Your task to perform on an android device: empty trash in the gmail app Image 0: 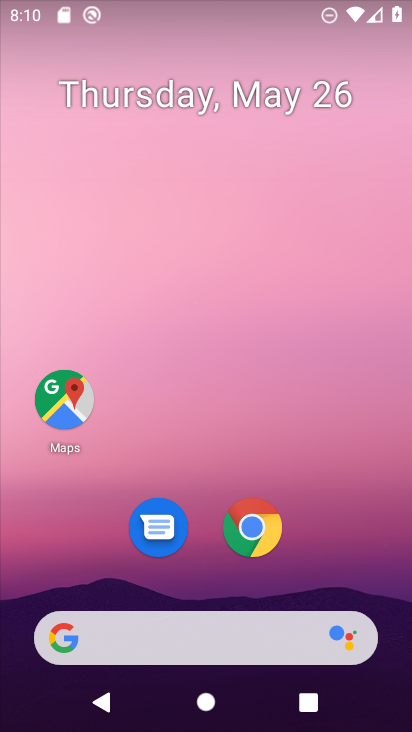
Step 0: press home button
Your task to perform on an android device: empty trash in the gmail app Image 1: 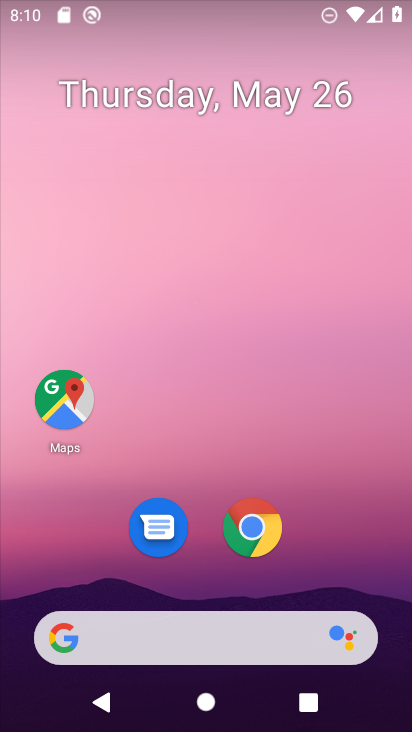
Step 1: drag from (6, 546) to (207, 62)
Your task to perform on an android device: empty trash in the gmail app Image 2: 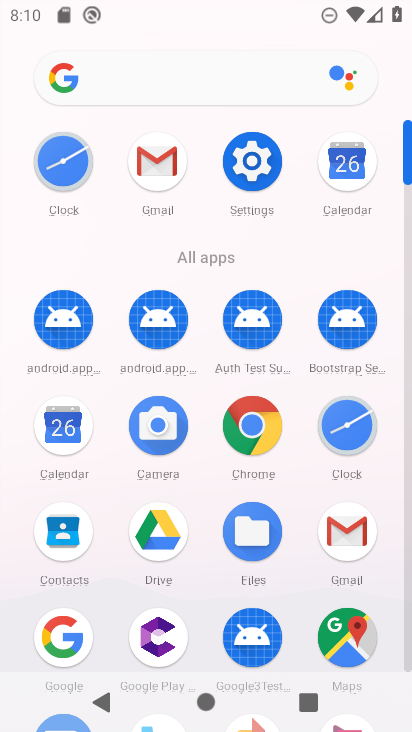
Step 2: click (171, 157)
Your task to perform on an android device: empty trash in the gmail app Image 3: 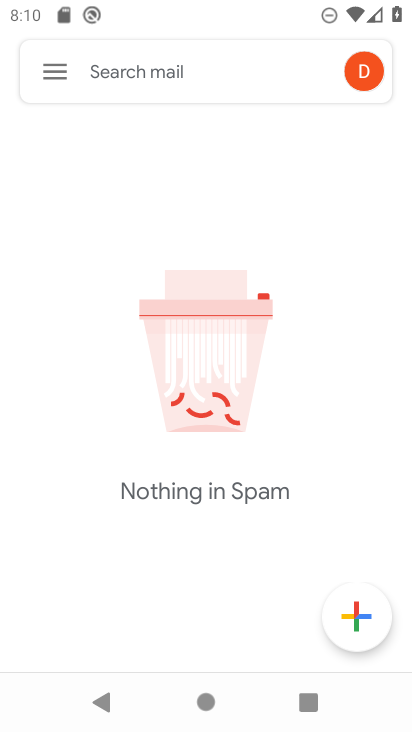
Step 3: click (45, 72)
Your task to perform on an android device: empty trash in the gmail app Image 4: 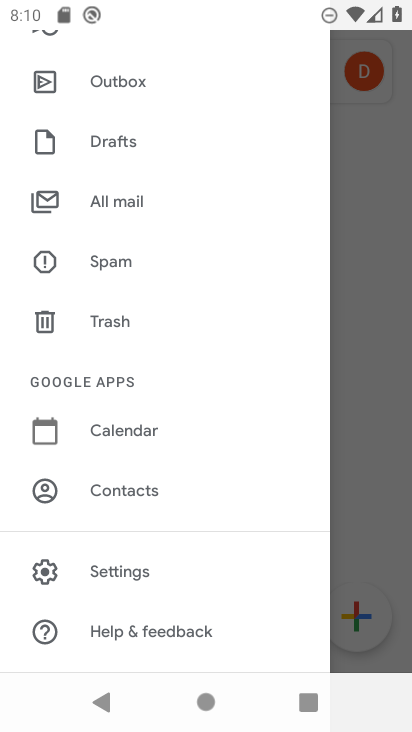
Step 4: click (113, 317)
Your task to perform on an android device: empty trash in the gmail app Image 5: 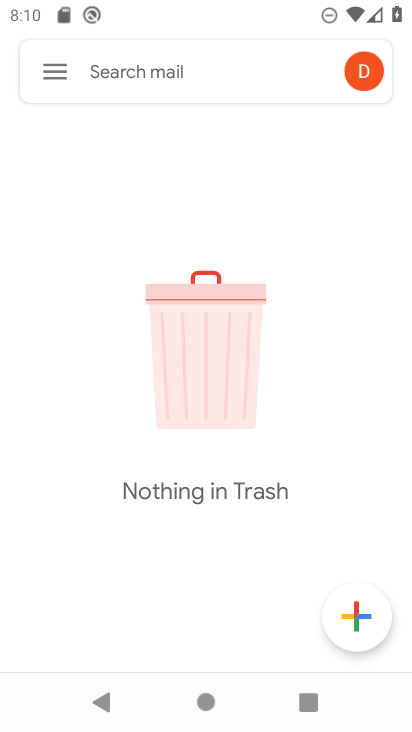
Step 5: task complete